Your task to perform on an android device: Go to network settings Image 0: 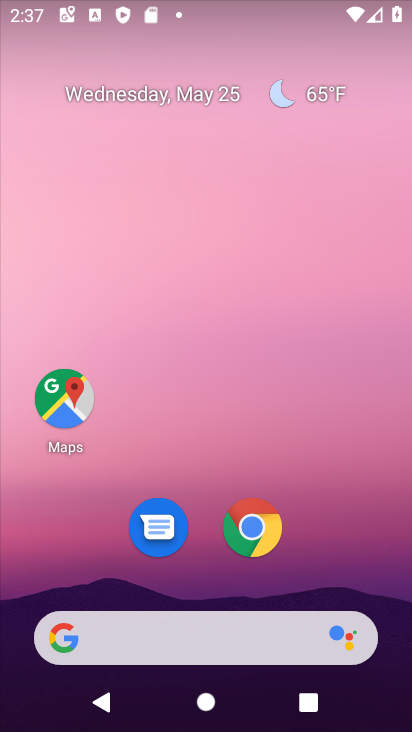
Step 0: drag from (243, 493) to (244, 58)
Your task to perform on an android device: Go to network settings Image 1: 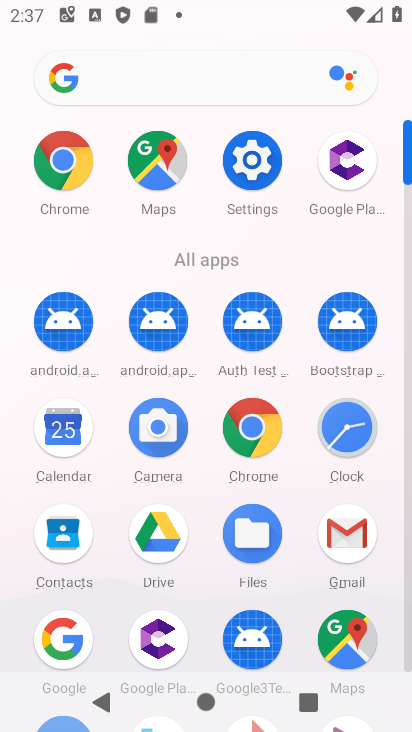
Step 1: click (247, 152)
Your task to perform on an android device: Go to network settings Image 2: 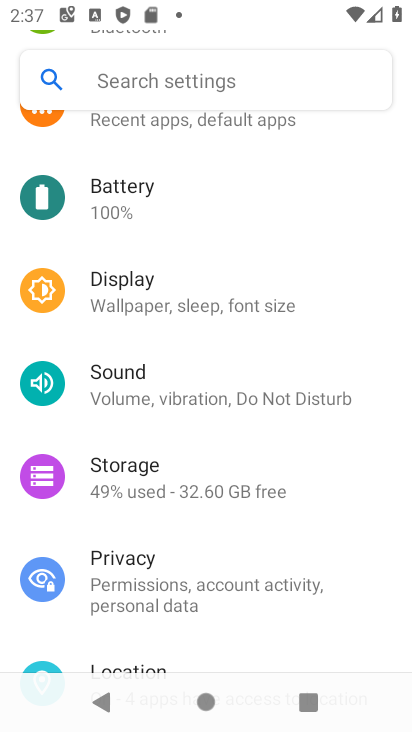
Step 2: drag from (229, 163) to (290, 665)
Your task to perform on an android device: Go to network settings Image 3: 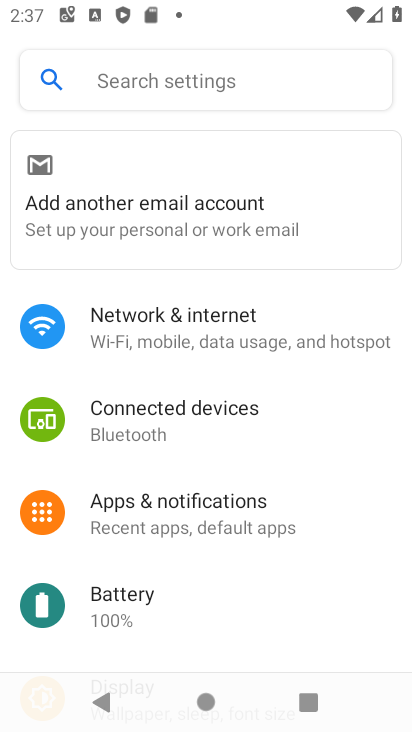
Step 3: click (201, 334)
Your task to perform on an android device: Go to network settings Image 4: 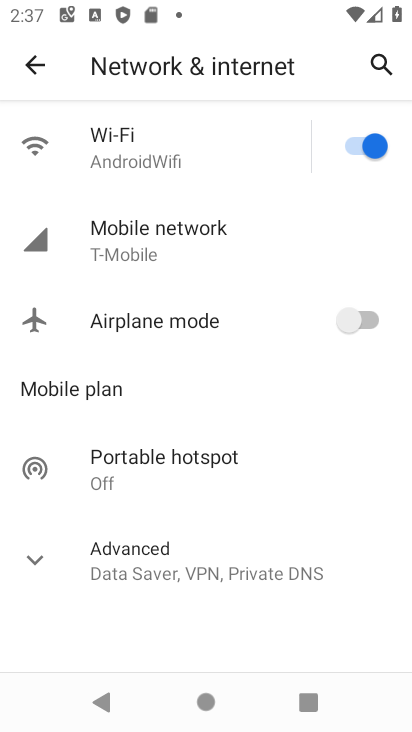
Step 4: task complete